Your task to perform on an android device: Open the stopwatch Image 0: 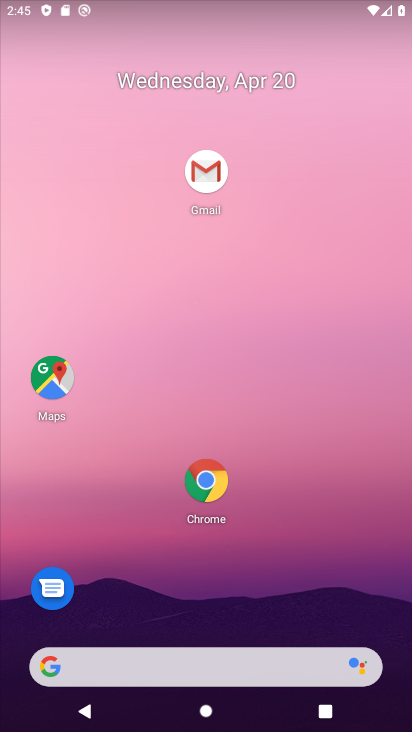
Step 0: drag from (212, 389) to (157, 143)
Your task to perform on an android device: Open the stopwatch Image 1: 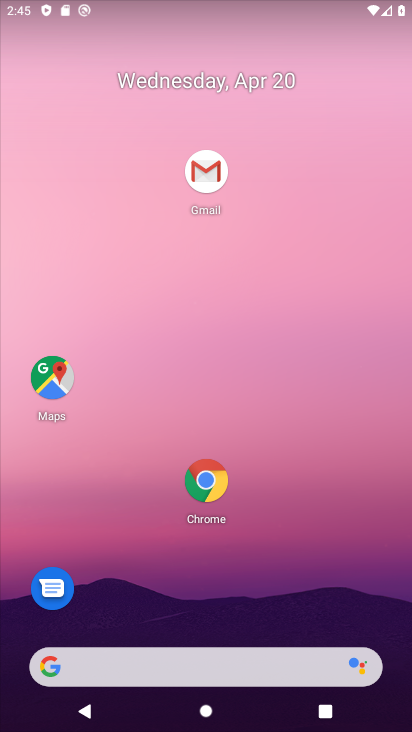
Step 1: drag from (308, 612) to (161, 183)
Your task to perform on an android device: Open the stopwatch Image 2: 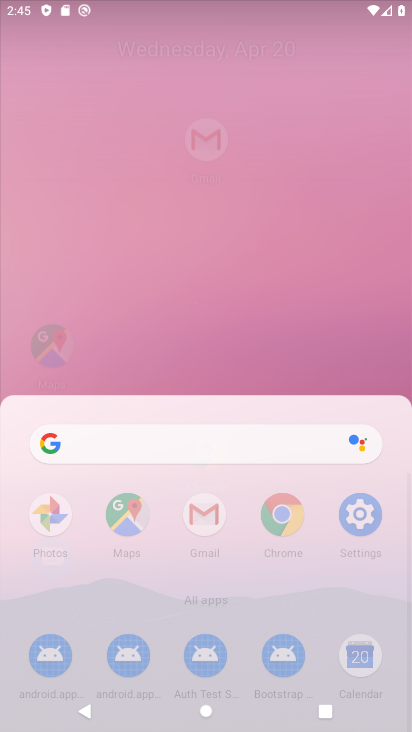
Step 2: drag from (307, 590) to (225, 304)
Your task to perform on an android device: Open the stopwatch Image 3: 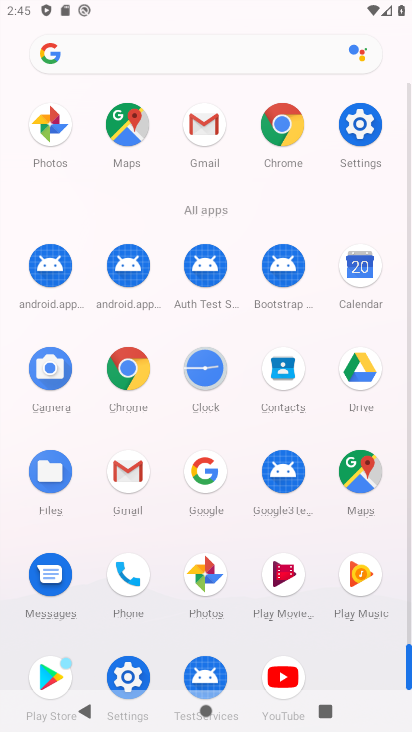
Step 3: drag from (259, 508) to (164, 282)
Your task to perform on an android device: Open the stopwatch Image 4: 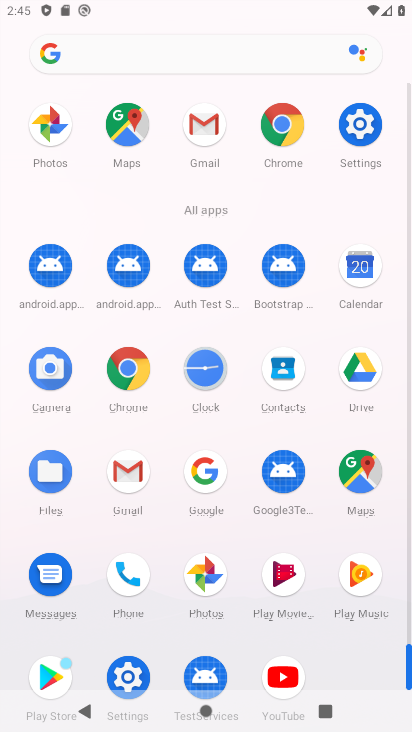
Step 4: click (194, 380)
Your task to perform on an android device: Open the stopwatch Image 5: 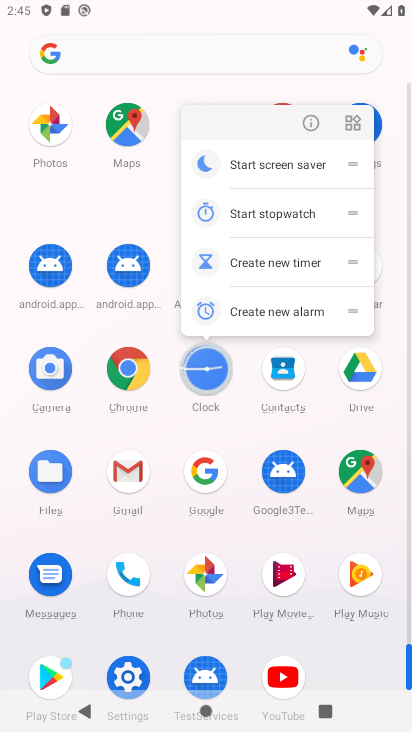
Step 5: drag from (196, 378) to (226, 406)
Your task to perform on an android device: Open the stopwatch Image 6: 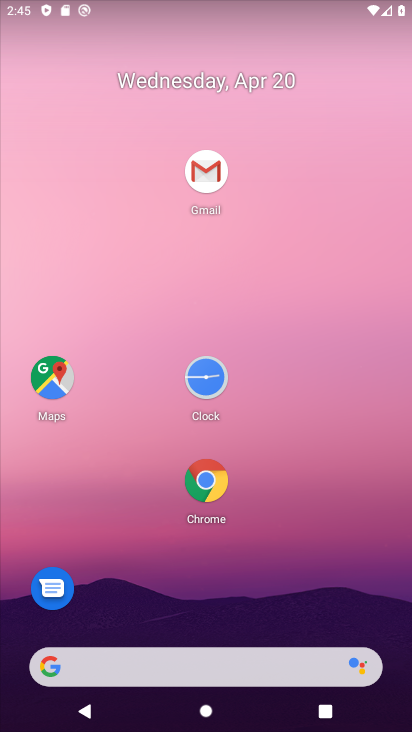
Step 6: click (197, 383)
Your task to perform on an android device: Open the stopwatch Image 7: 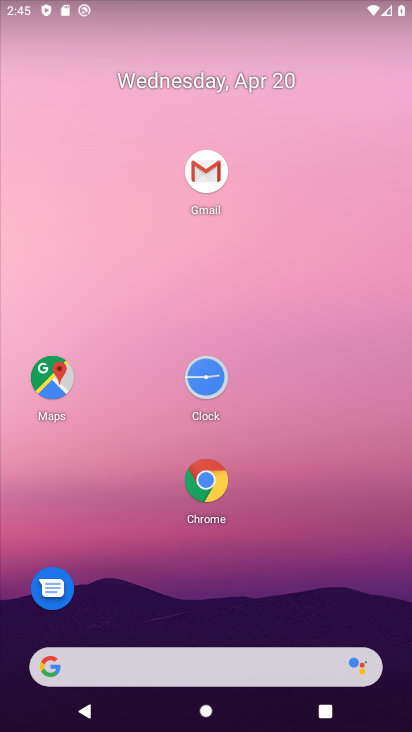
Step 7: click (199, 375)
Your task to perform on an android device: Open the stopwatch Image 8: 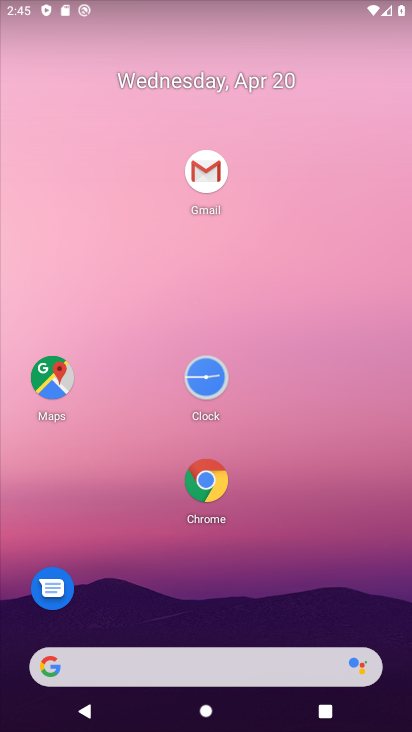
Step 8: click (195, 369)
Your task to perform on an android device: Open the stopwatch Image 9: 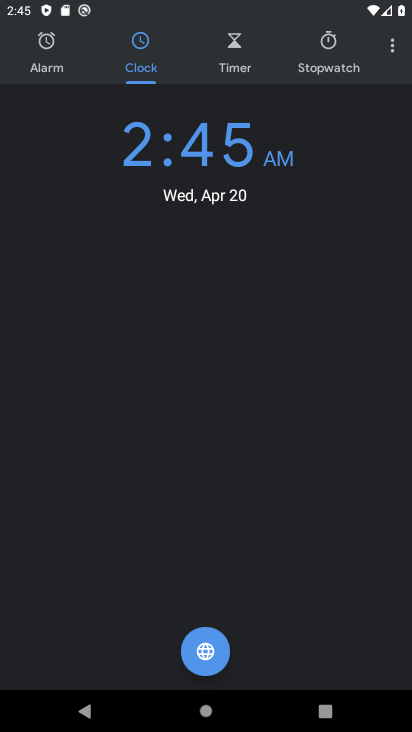
Step 9: click (338, 56)
Your task to perform on an android device: Open the stopwatch Image 10: 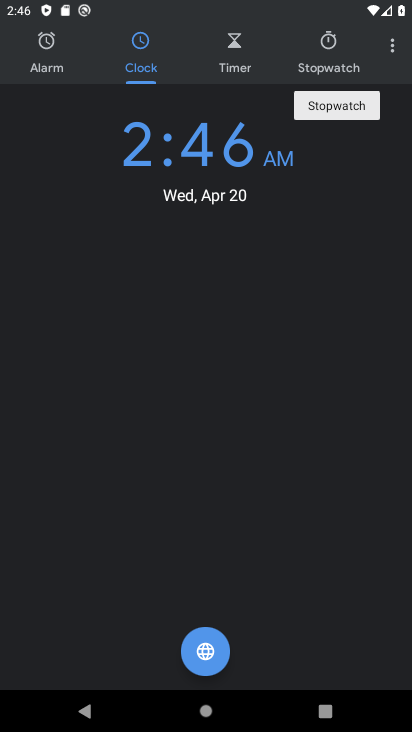
Step 10: click (338, 56)
Your task to perform on an android device: Open the stopwatch Image 11: 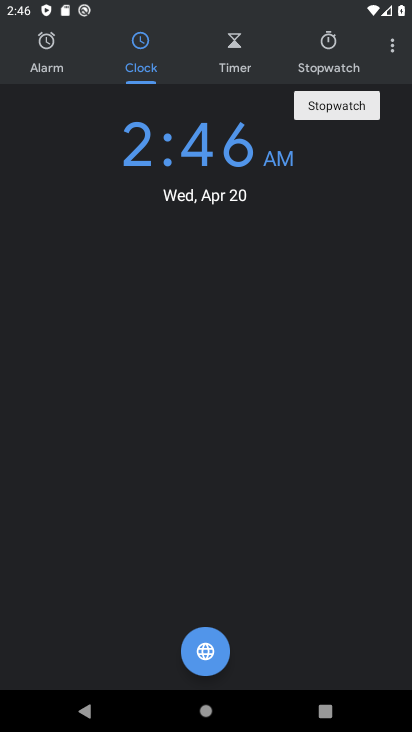
Step 11: click (338, 56)
Your task to perform on an android device: Open the stopwatch Image 12: 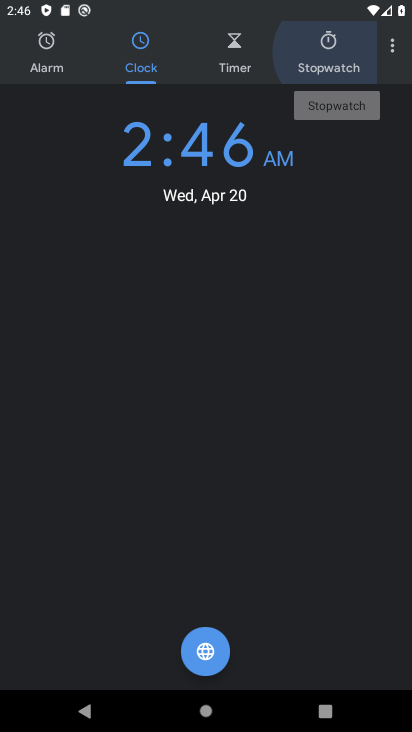
Step 12: click (333, 56)
Your task to perform on an android device: Open the stopwatch Image 13: 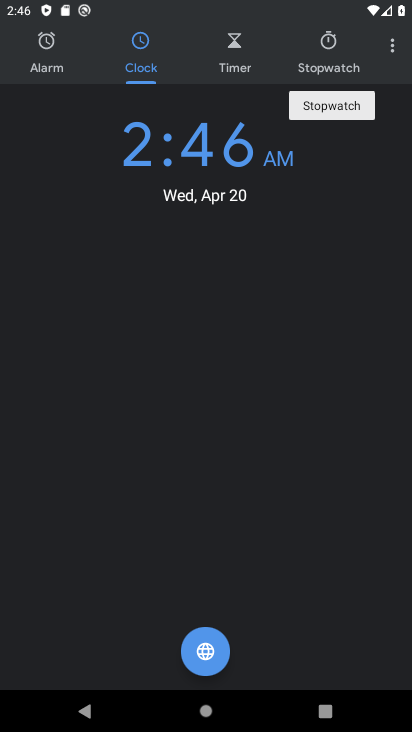
Step 13: click (327, 69)
Your task to perform on an android device: Open the stopwatch Image 14: 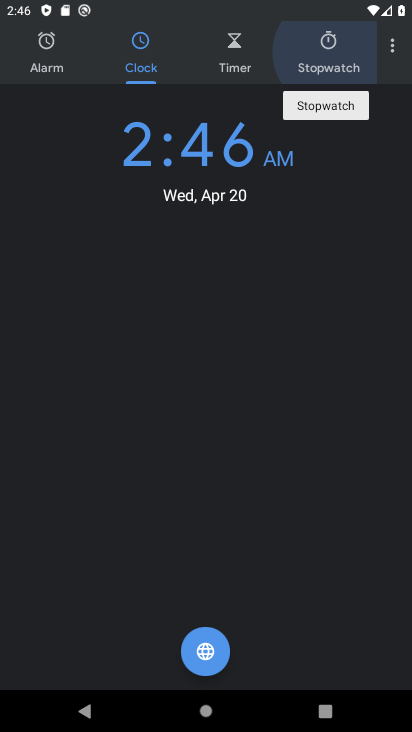
Step 14: click (344, 110)
Your task to perform on an android device: Open the stopwatch Image 15: 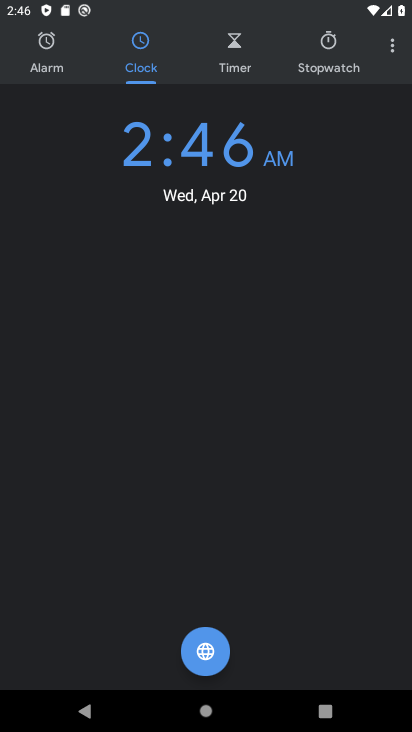
Step 15: click (348, 106)
Your task to perform on an android device: Open the stopwatch Image 16: 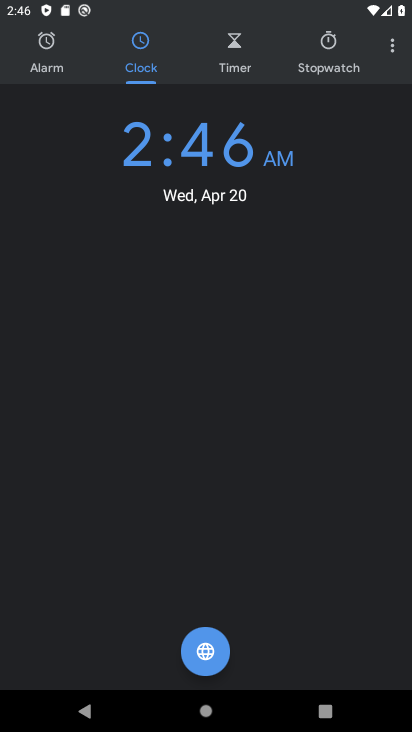
Step 16: click (319, 41)
Your task to perform on an android device: Open the stopwatch Image 17: 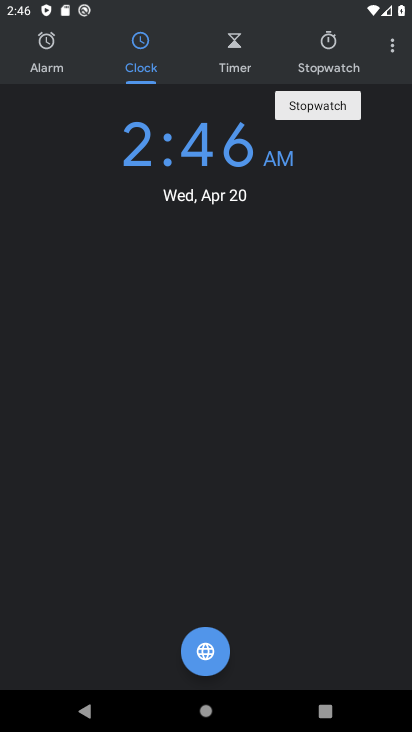
Step 17: click (320, 40)
Your task to perform on an android device: Open the stopwatch Image 18: 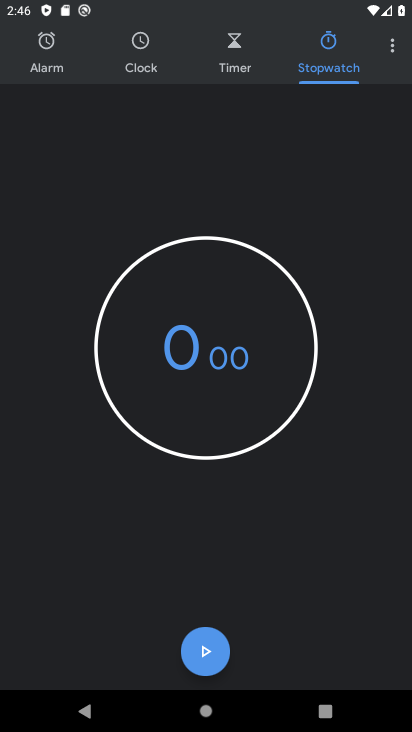
Step 18: click (200, 655)
Your task to perform on an android device: Open the stopwatch Image 19: 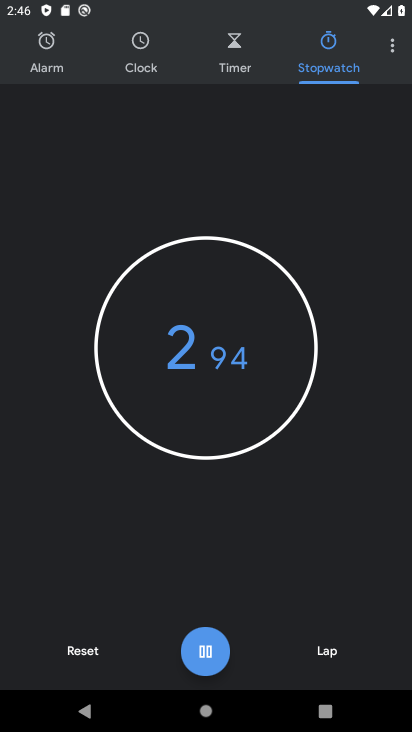
Step 19: click (204, 648)
Your task to perform on an android device: Open the stopwatch Image 20: 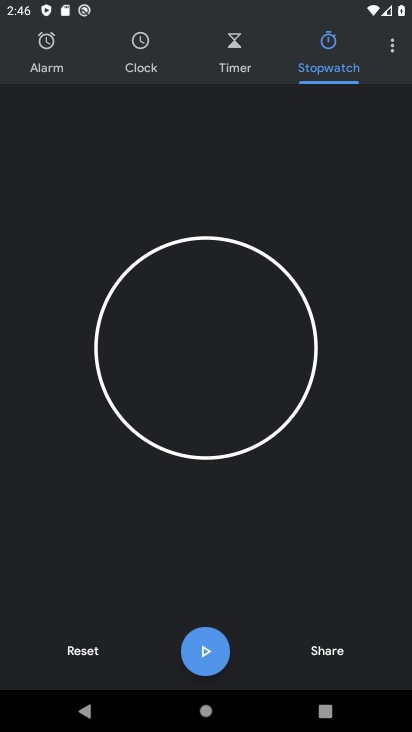
Step 20: click (204, 648)
Your task to perform on an android device: Open the stopwatch Image 21: 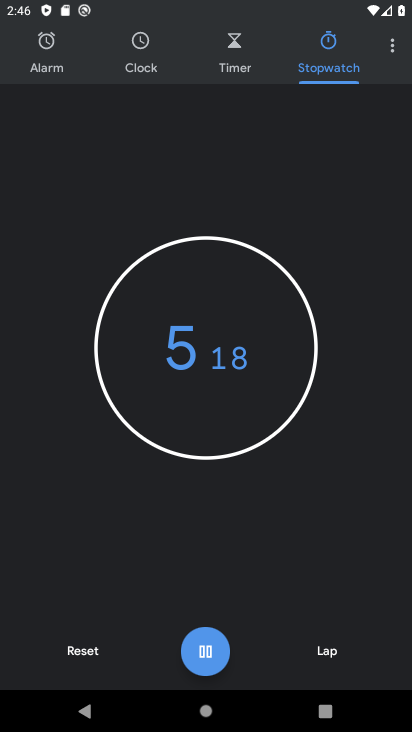
Step 21: task complete